Your task to perform on an android device: turn on improve location accuracy Image 0: 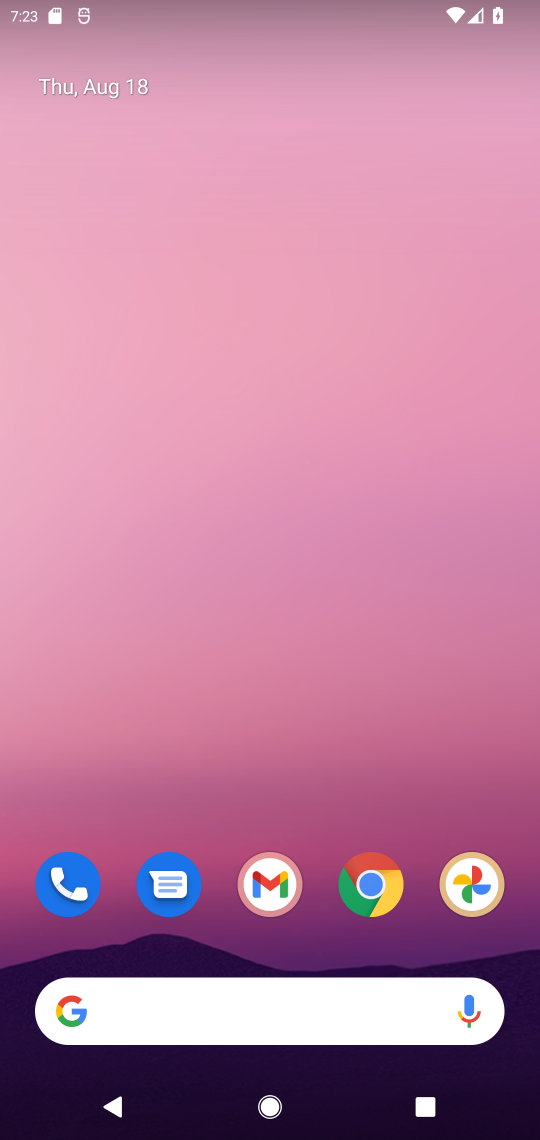
Step 0: drag from (224, 937) to (322, 256)
Your task to perform on an android device: turn on improve location accuracy Image 1: 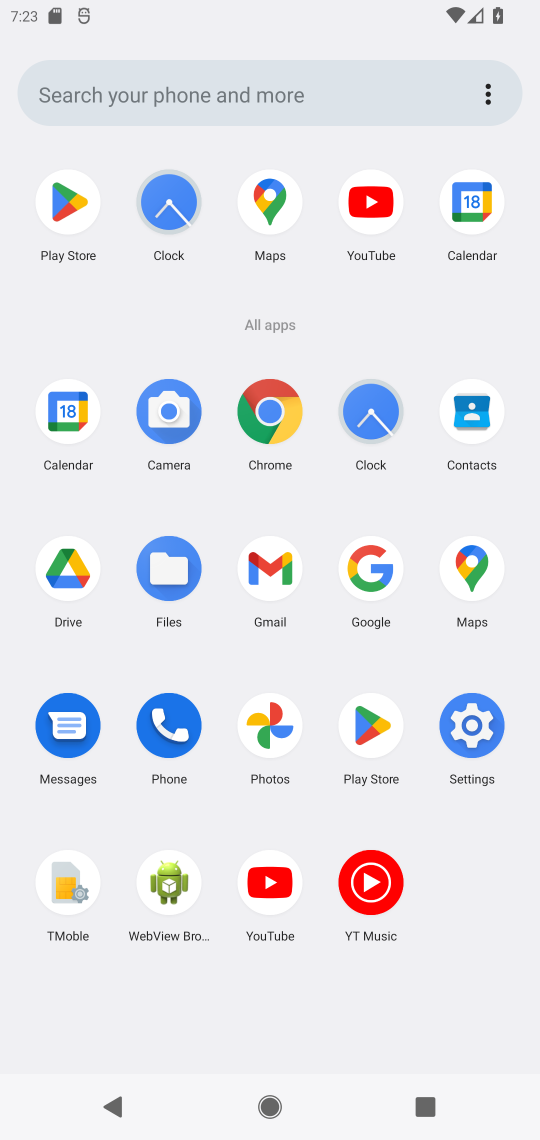
Step 1: click (469, 725)
Your task to perform on an android device: turn on improve location accuracy Image 2: 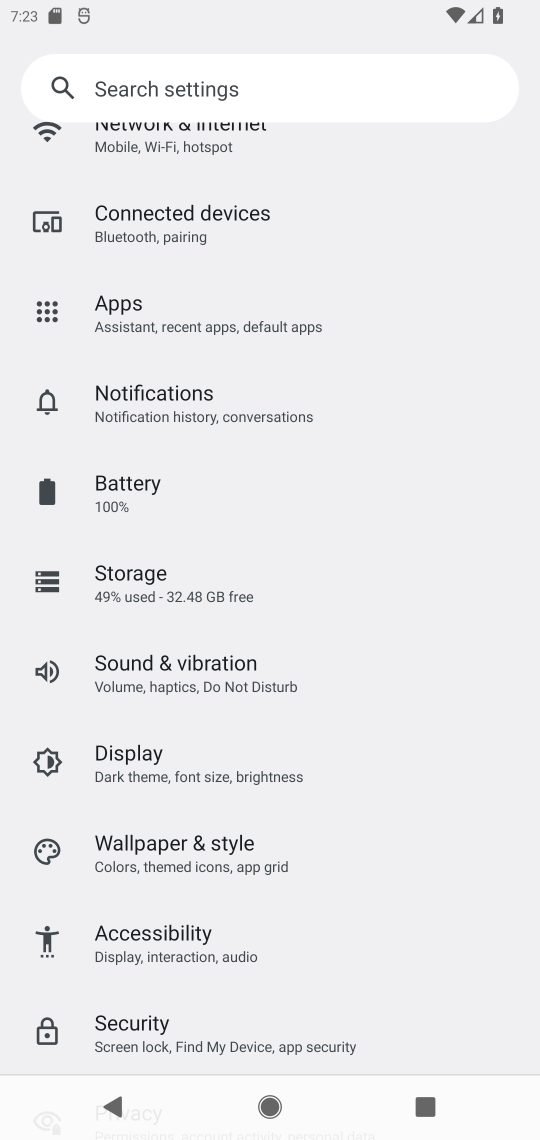
Step 2: drag from (226, 164) to (248, 792)
Your task to perform on an android device: turn on improve location accuracy Image 3: 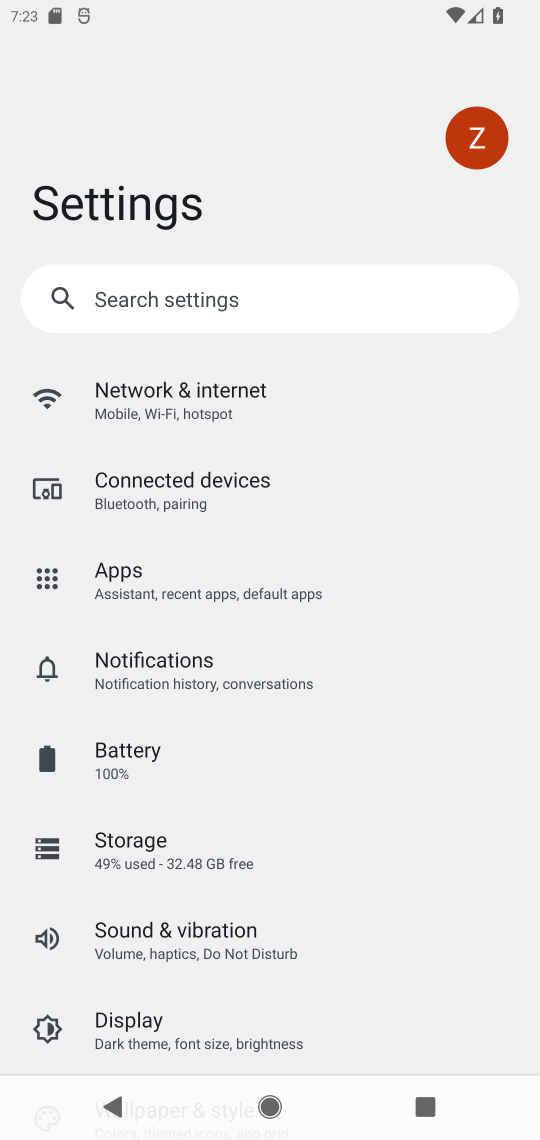
Step 3: drag from (307, 967) to (323, 475)
Your task to perform on an android device: turn on improve location accuracy Image 4: 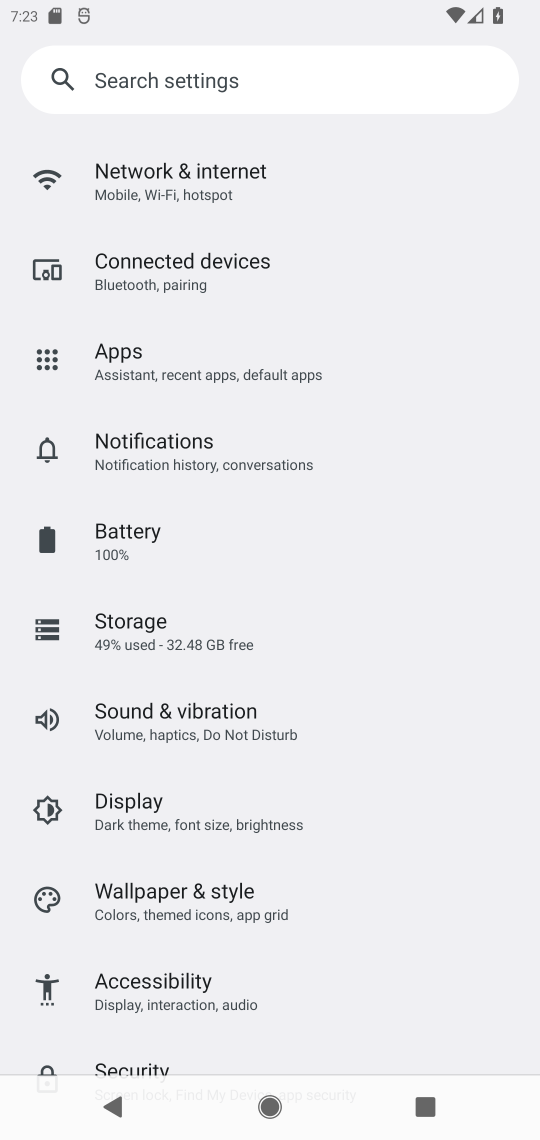
Step 4: drag from (320, 1033) to (310, 249)
Your task to perform on an android device: turn on improve location accuracy Image 5: 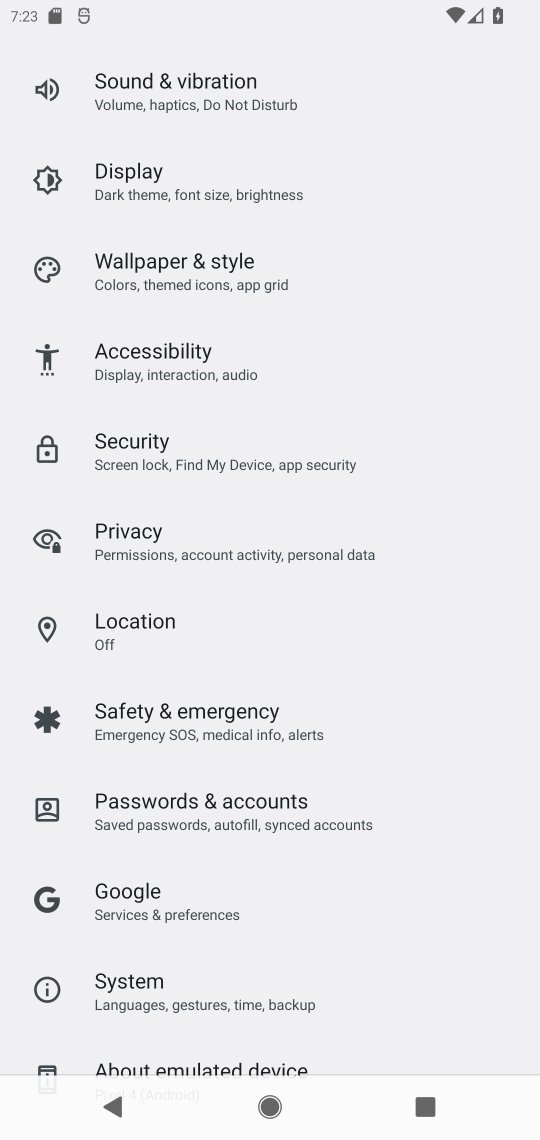
Step 5: click (194, 643)
Your task to perform on an android device: turn on improve location accuracy Image 6: 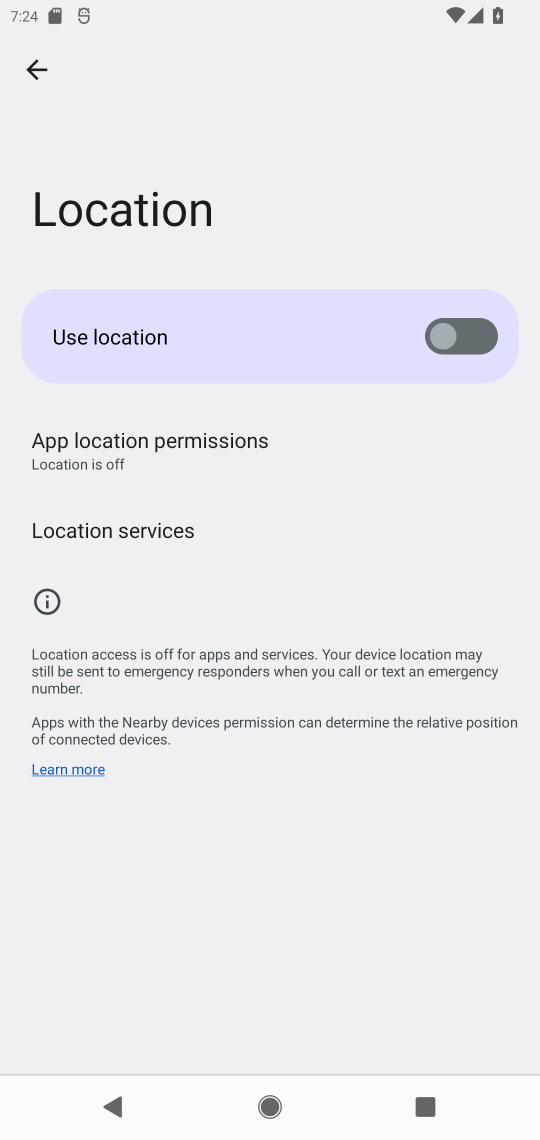
Step 6: task complete